Your task to perform on an android device: Search for seafood restaurants on Google Maps Image 0: 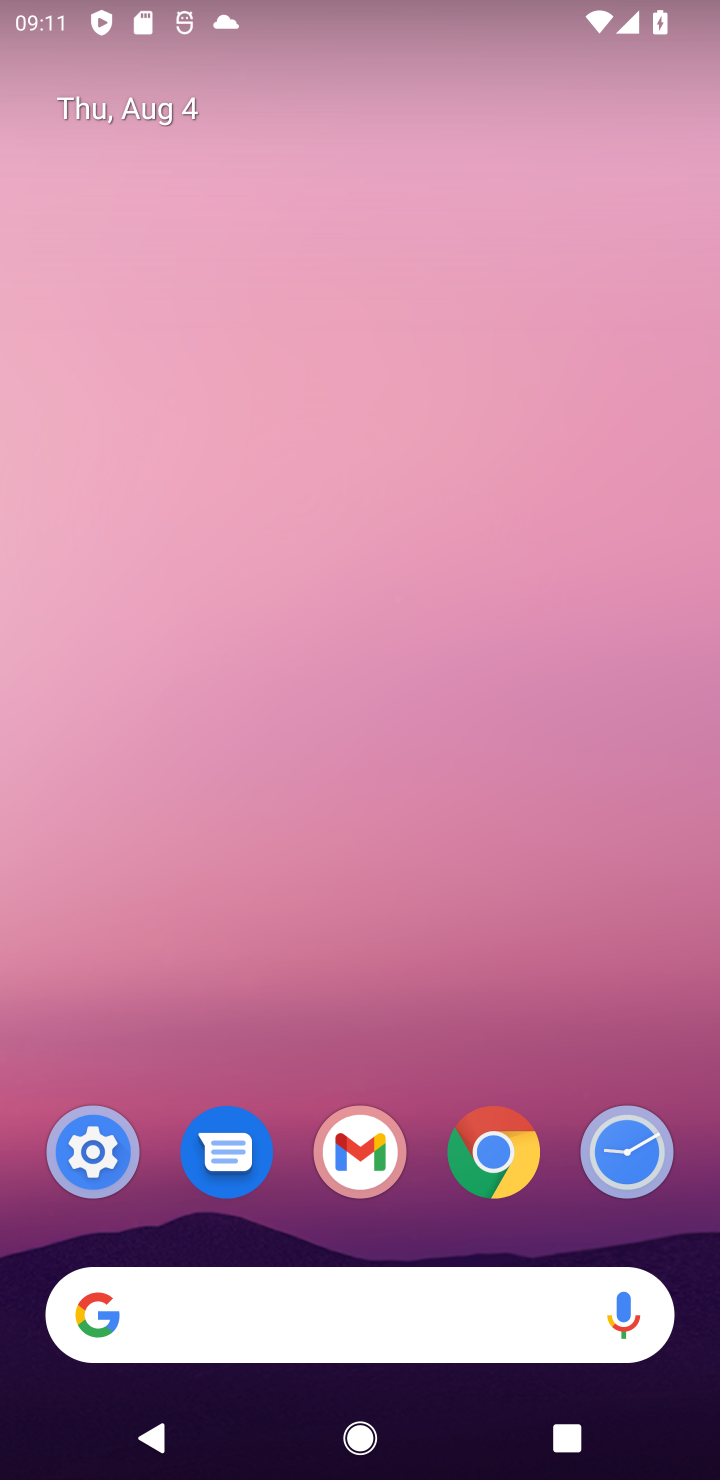
Step 0: drag from (41, 1289) to (604, 434)
Your task to perform on an android device: Search for seafood restaurants on Google Maps Image 1: 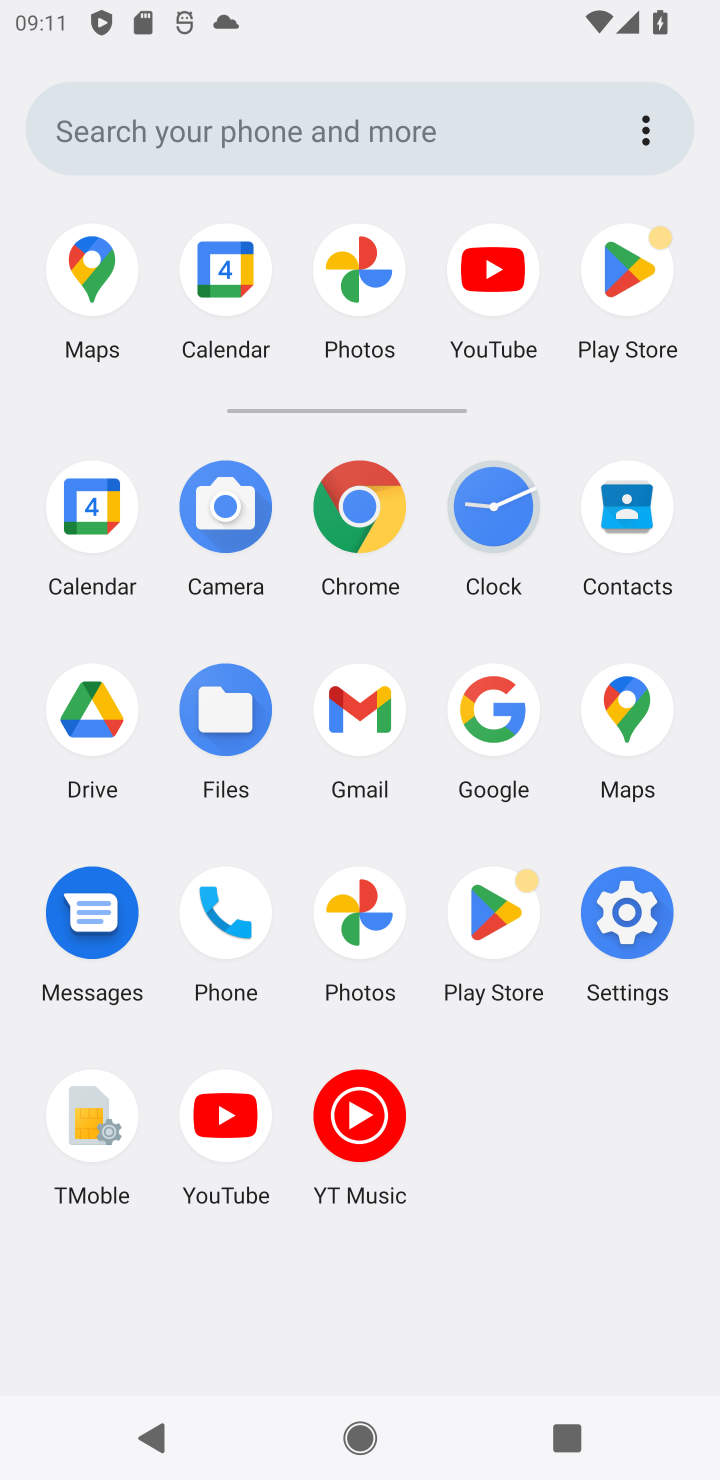
Step 1: click (72, 256)
Your task to perform on an android device: Search for seafood restaurants on Google Maps Image 2: 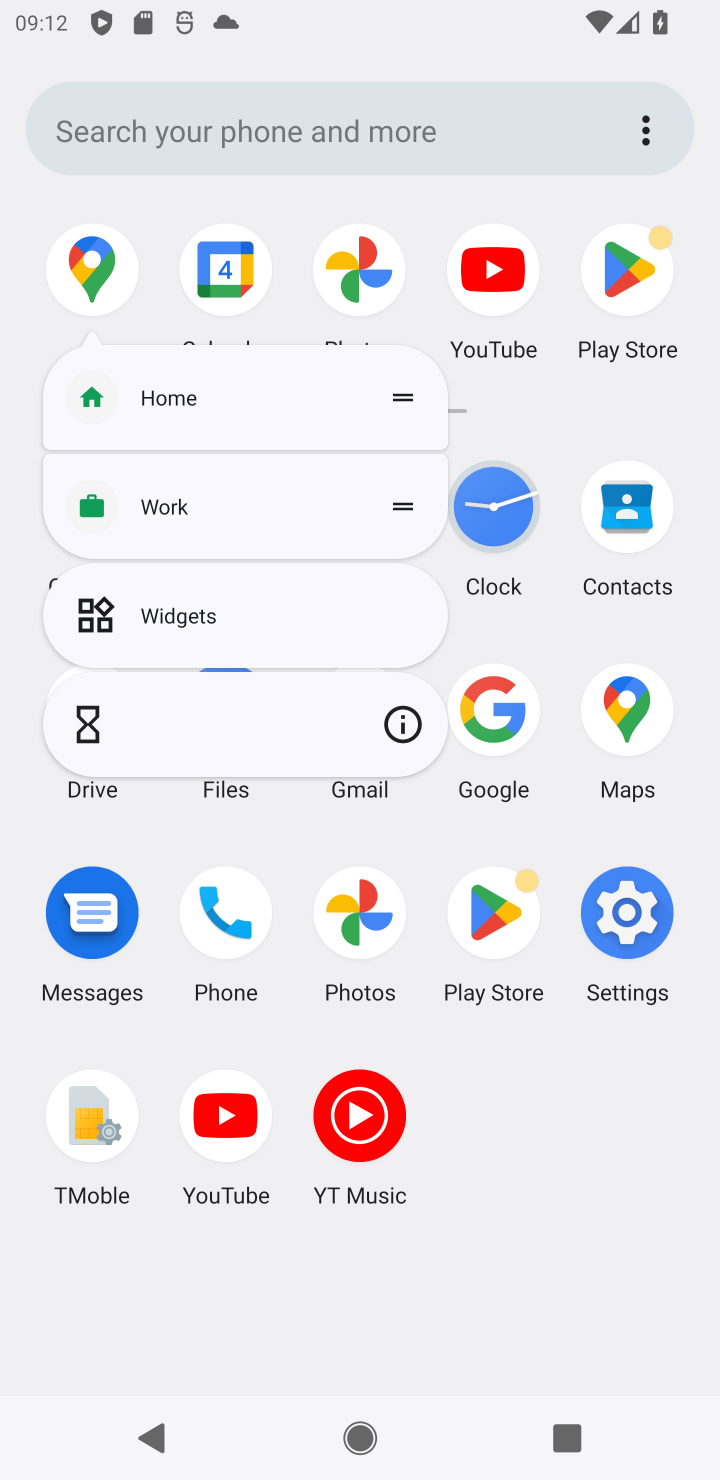
Step 2: click (92, 269)
Your task to perform on an android device: Search for seafood restaurants on Google Maps Image 3: 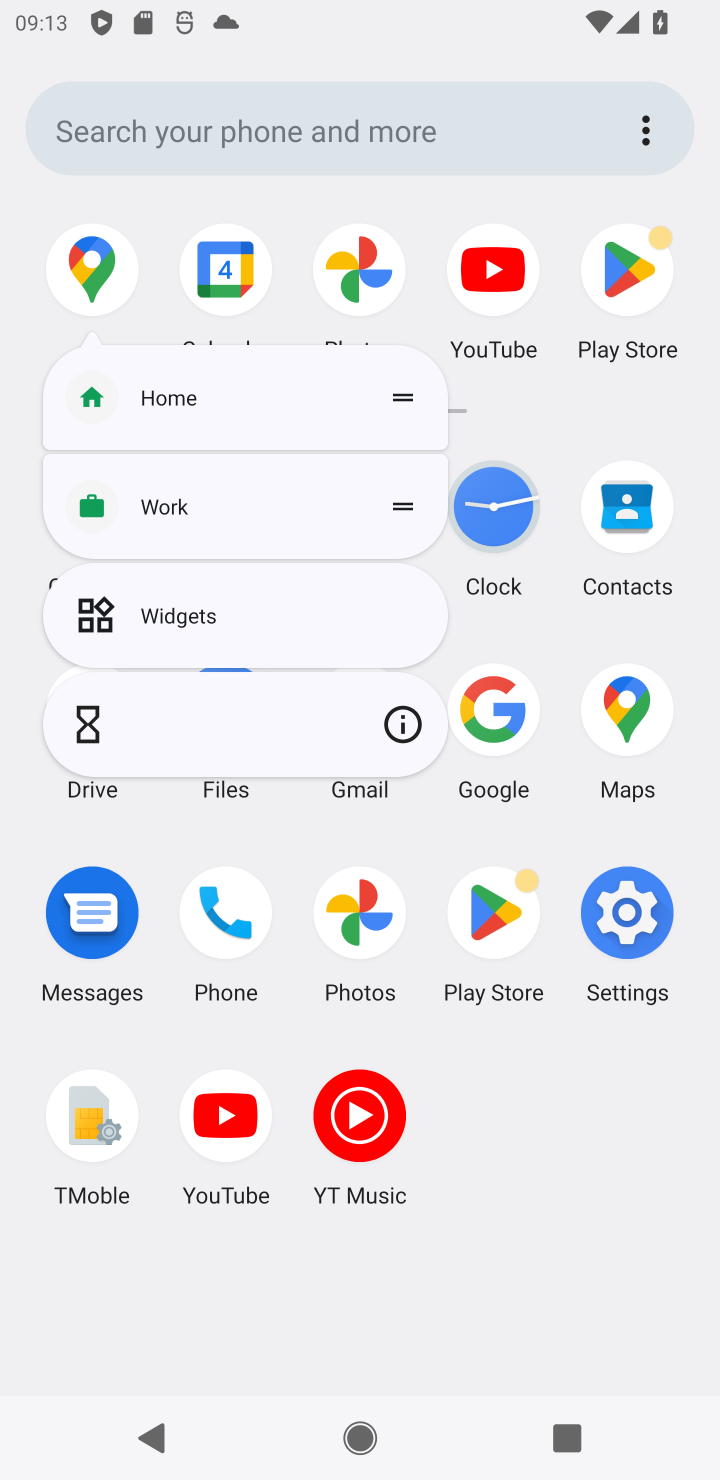
Step 3: click (103, 269)
Your task to perform on an android device: Search for seafood restaurants on Google Maps Image 4: 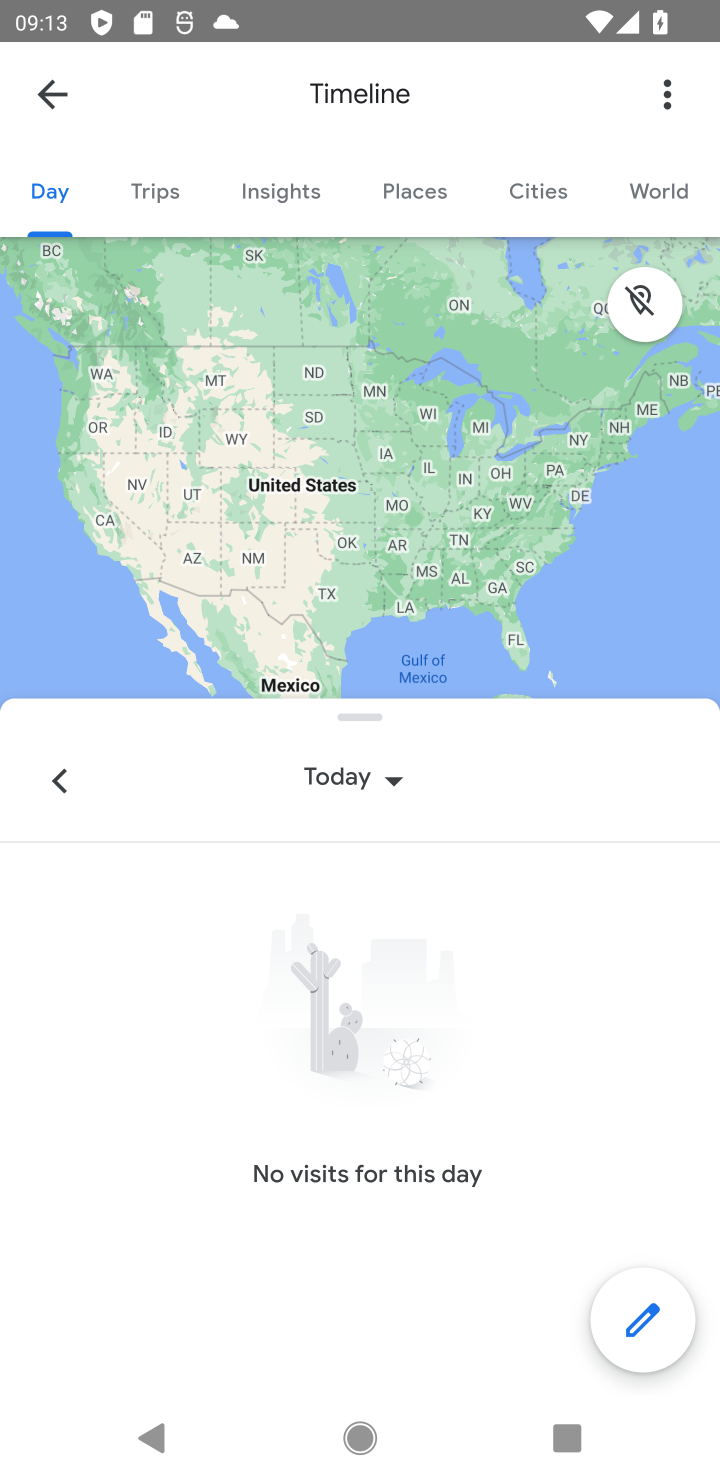
Step 4: click (64, 85)
Your task to perform on an android device: Search for seafood restaurants on Google Maps Image 5: 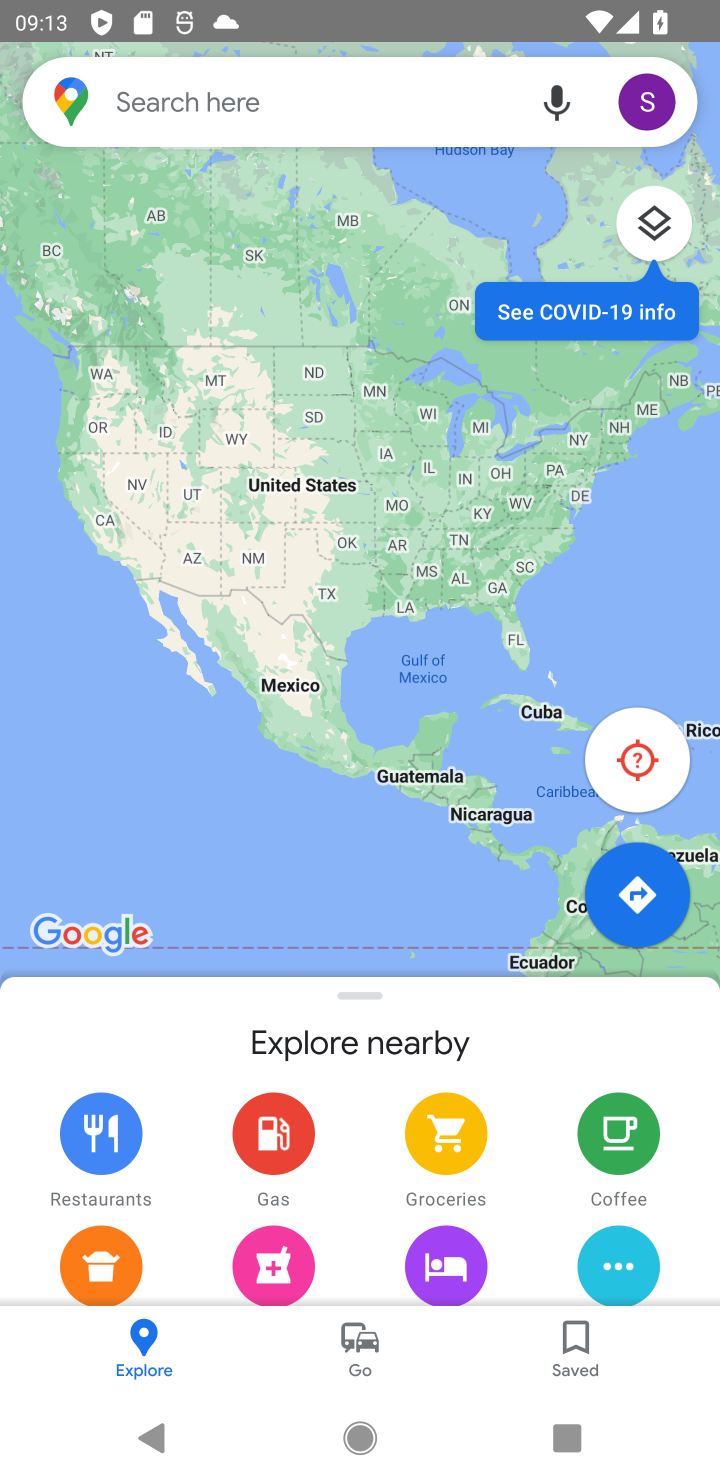
Step 5: click (281, 74)
Your task to perform on an android device: Search for seafood restaurants on Google Maps Image 6: 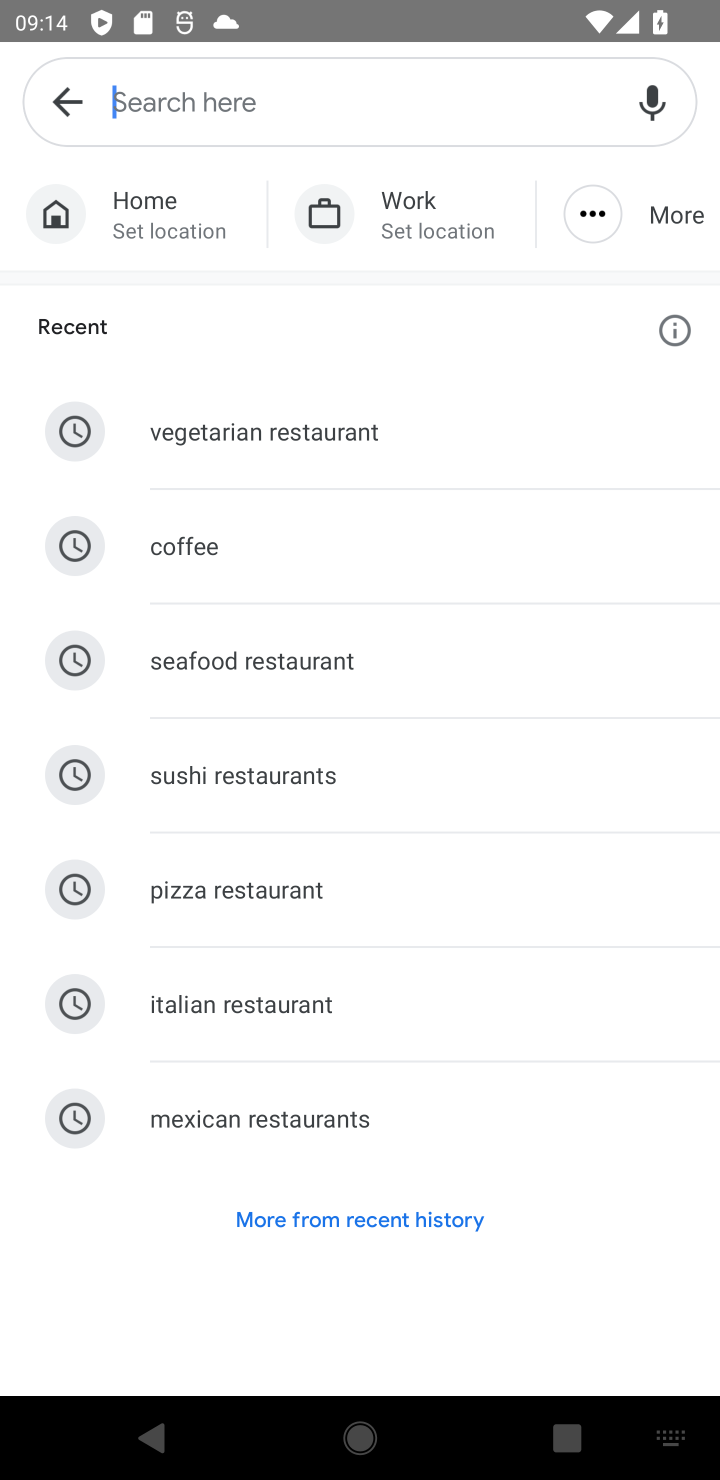
Step 6: click (165, 84)
Your task to perform on an android device: Search for seafood restaurants on Google Maps Image 7: 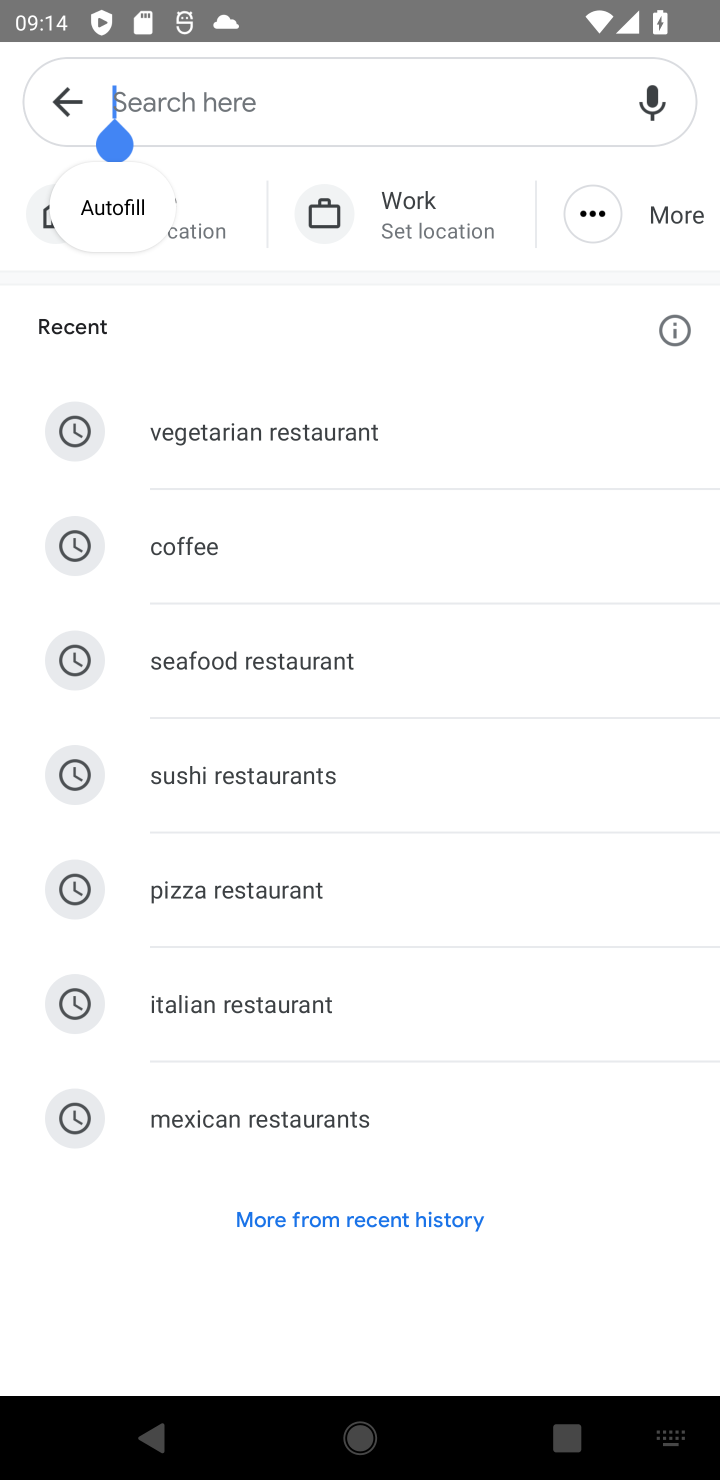
Step 7: type "seafood restaurants"
Your task to perform on an android device: Search for seafood restaurants on Google Maps Image 8: 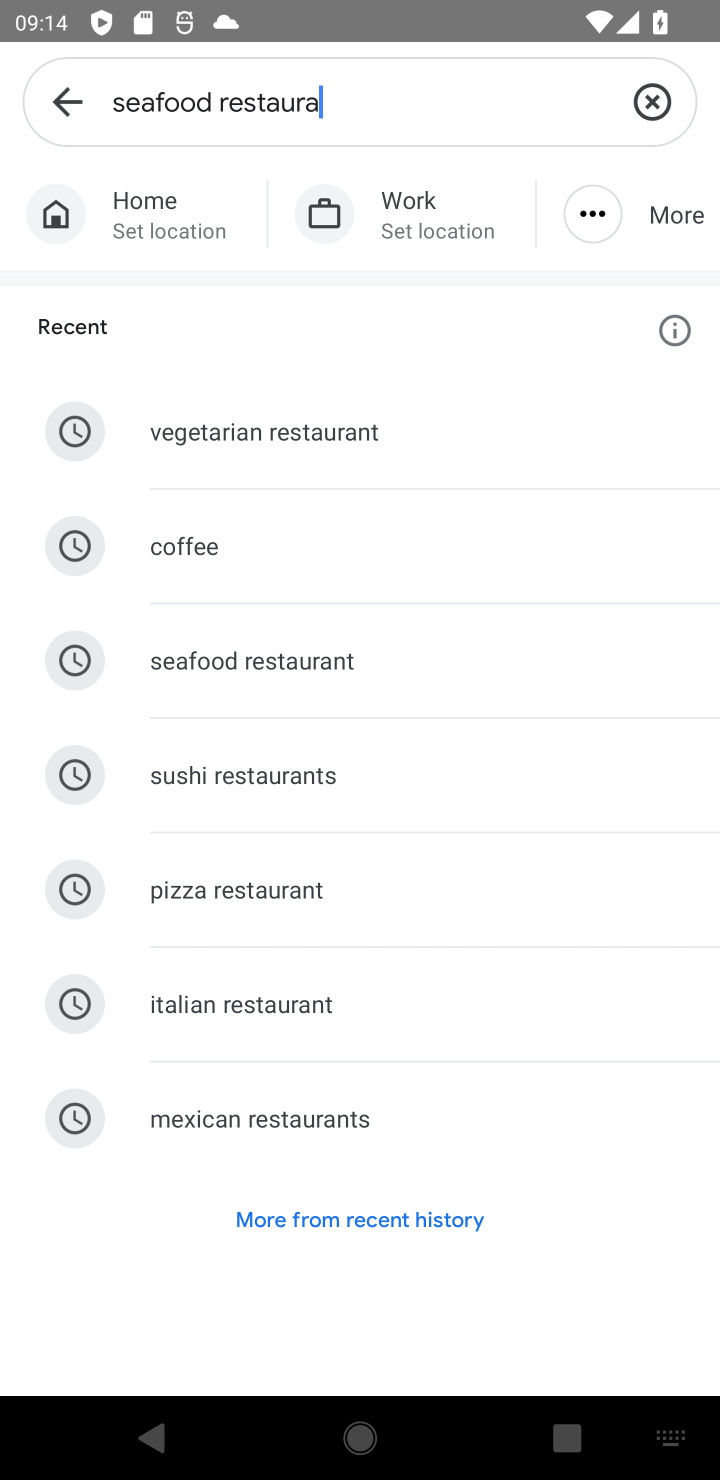
Step 8: type ""
Your task to perform on an android device: Search for seafood restaurants on Google Maps Image 9: 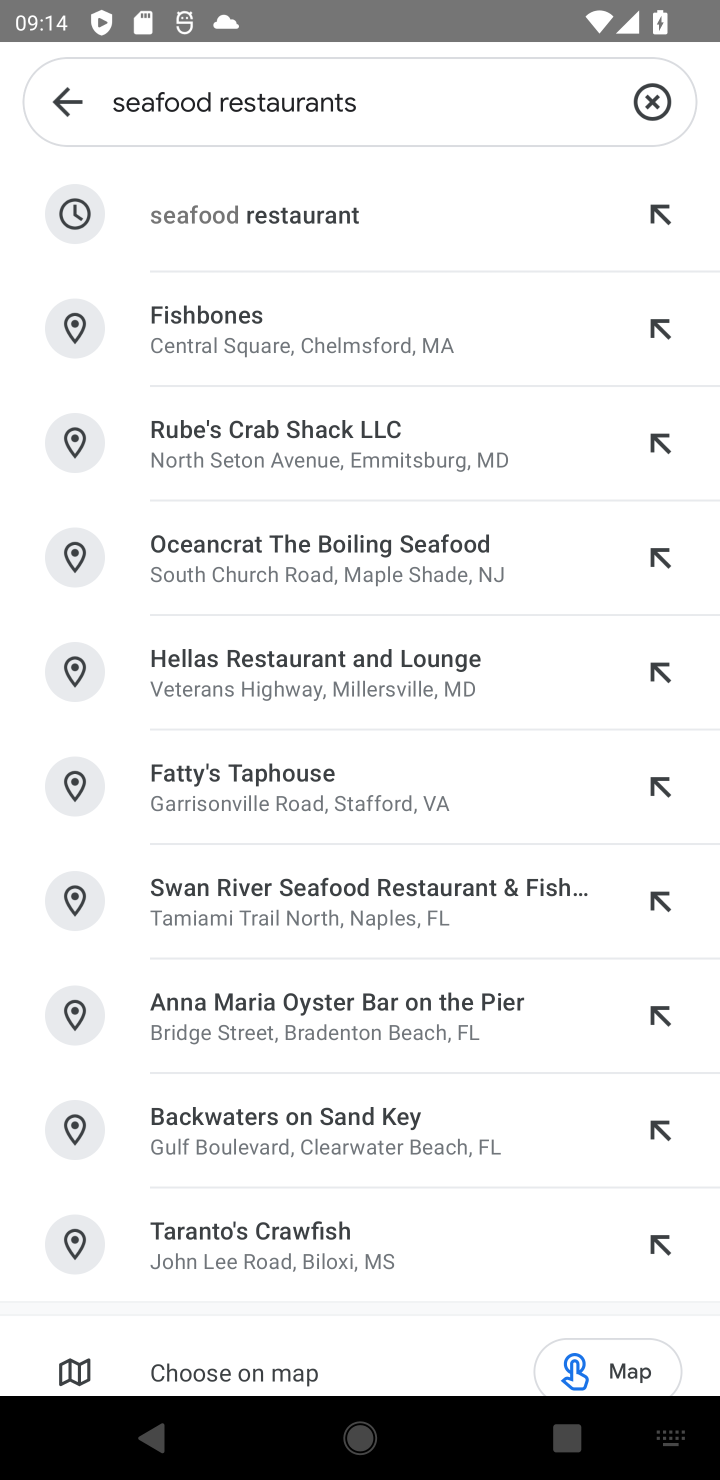
Step 9: click (350, 219)
Your task to perform on an android device: Search for seafood restaurants on Google Maps Image 10: 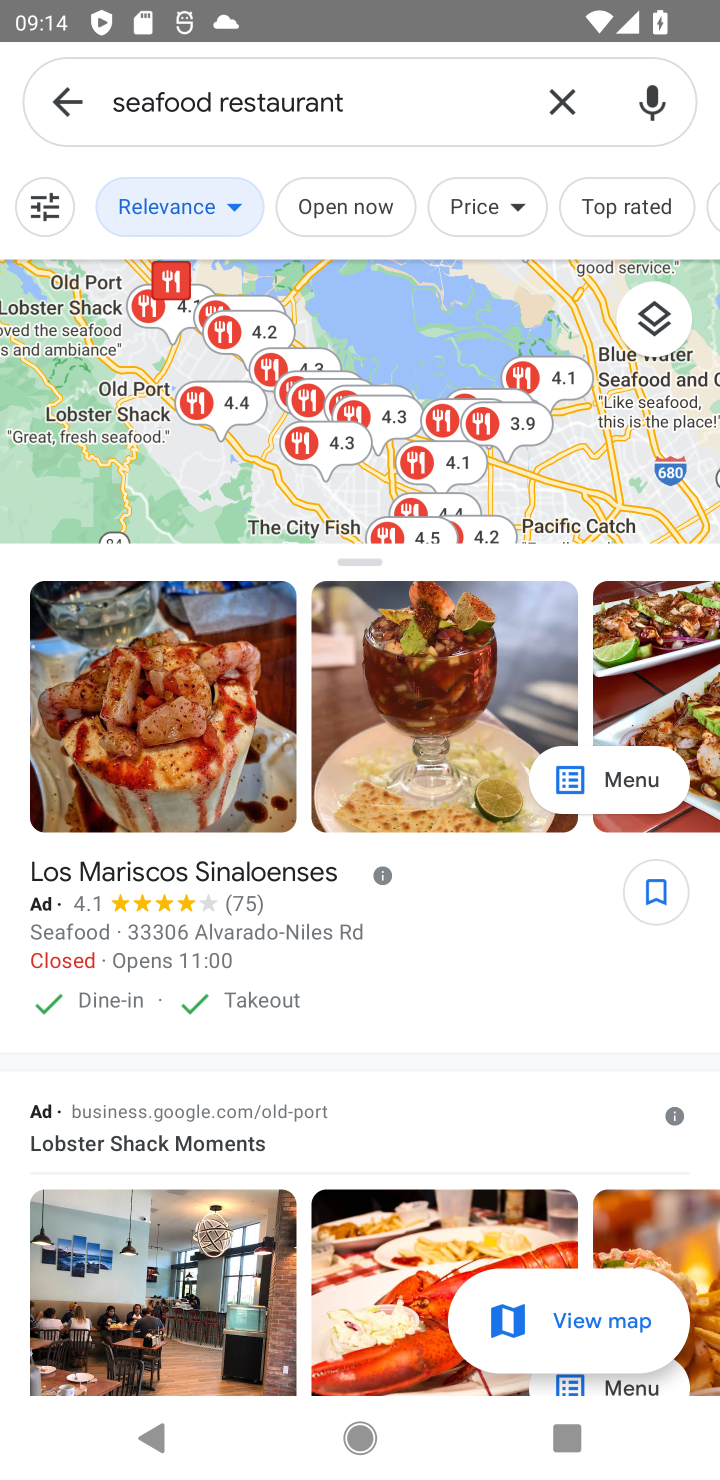
Step 10: task complete